Your task to perform on an android device: Search for lg ultragear on target, select the first entry, add it to the cart, then select checkout. Image 0: 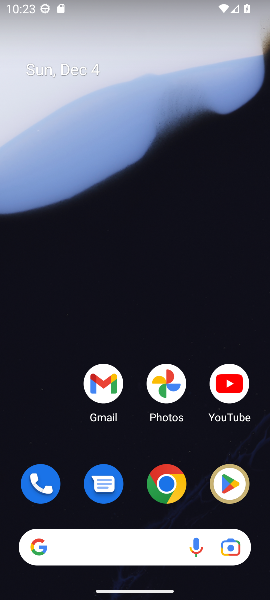
Step 0: click (168, 489)
Your task to perform on an android device: Search for lg ultragear on target, select the first entry, add it to the cart, then select checkout. Image 1: 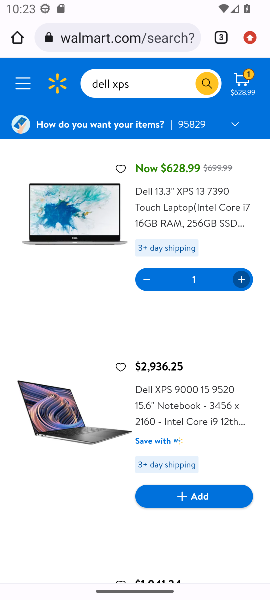
Step 1: click (103, 36)
Your task to perform on an android device: Search for lg ultragear on target, select the first entry, add it to the cart, then select checkout. Image 2: 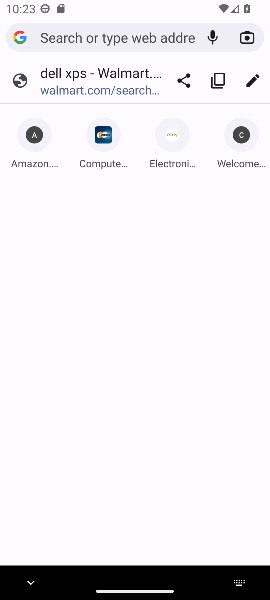
Step 2: type "target.com"
Your task to perform on an android device: Search for lg ultragear on target, select the first entry, add it to the cart, then select checkout. Image 3: 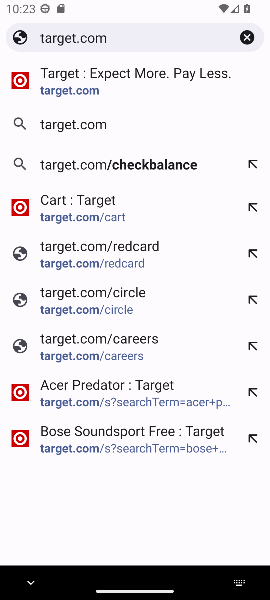
Step 3: click (61, 90)
Your task to perform on an android device: Search for lg ultragear on target, select the first entry, add it to the cart, then select checkout. Image 4: 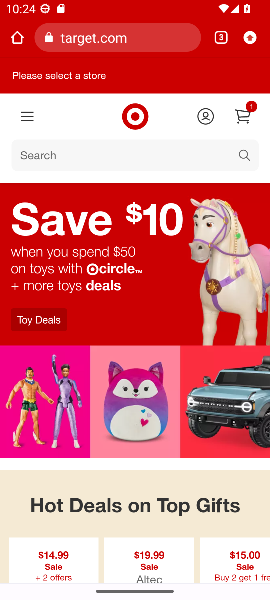
Step 4: click (42, 155)
Your task to perform on an android device: Search for lg ultragear on target, select the first entry, add it to the cart, then select checkout. Image 5: 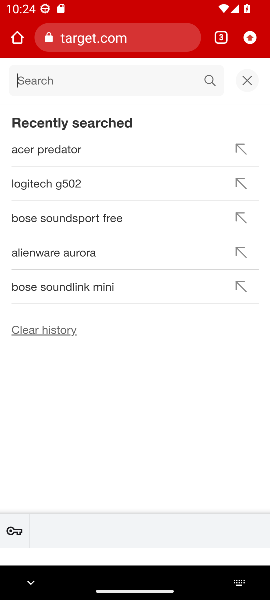
Step 5: type " lg ultragear"
Your task to perform on an android device: Search for lg ultragear on target, select the first entry, add it to the cart, then select checkout. Image 6: 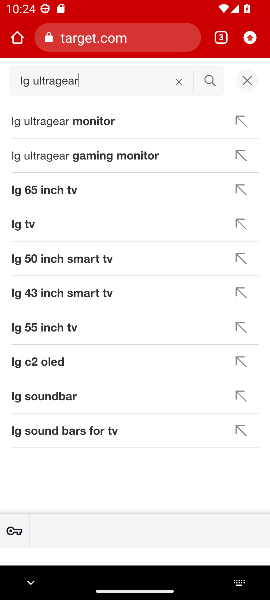
Step 6: click (214, 81)
Your task to perform on an android device: Search for lg ultragear on target, select the first entry, add it to the cart, then select checkout. Image 7: 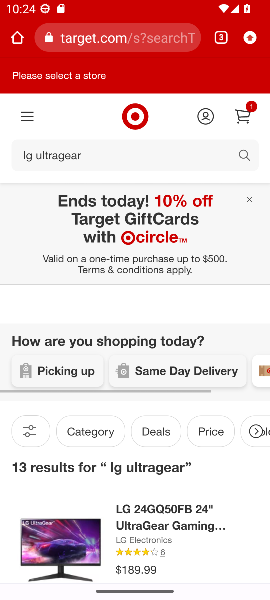
Step 7: drag from (86, 466) to (121, 261)
Your task to perform on an android device: Search for lg ultragear on target, select the first entry, add it to the cart, then select checkout. Image 8: 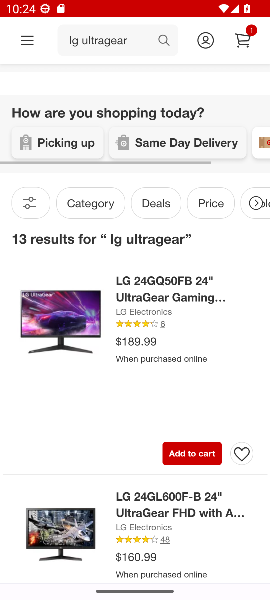
Step 8: click (187, 452)
Your task to perform on an android device: Search for lg ultragear on target, select the first entry, add it to the cart, then select checkout. Image 9: 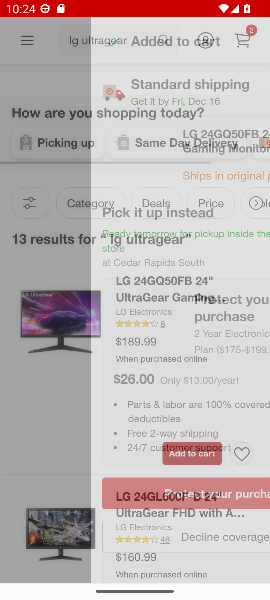
Step 9: click (246, 40)
Your task to perform on an android device: Search for lg ultragear on target, select the first entry, add it to the cart, then select checkout. Image 10: 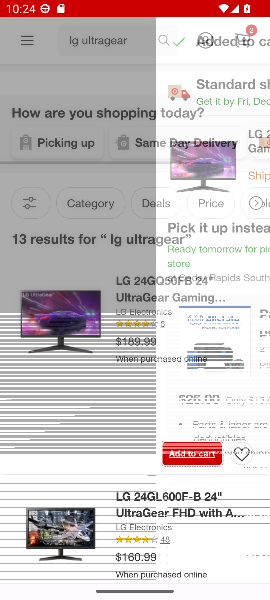
Step 10: click (235, 51)
Your task to perform on an android device: Search for lg ultragear on target, select the first entry, add it to the cart, then select checkout. Image 11: 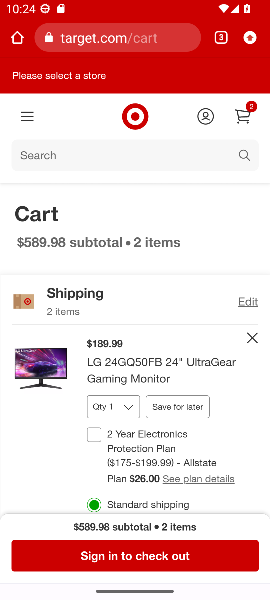
Step 11: click (106, 557)
Your task to perform on an android device: Search for lg ultragear on target, select the first entry, add it to the cart, then select checkout. Image 12: 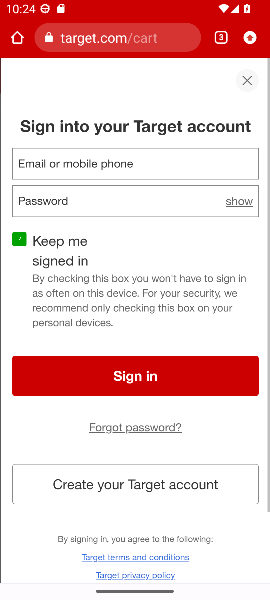
Step 12: task complete